Your task to perform on an android device: What is the news today? Image 0: 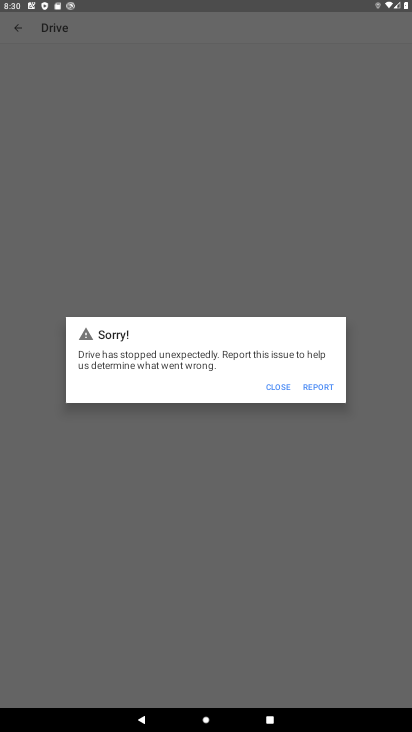
Step 0: press home button
Your task to perform on an android device: What is the news today? Image 1: 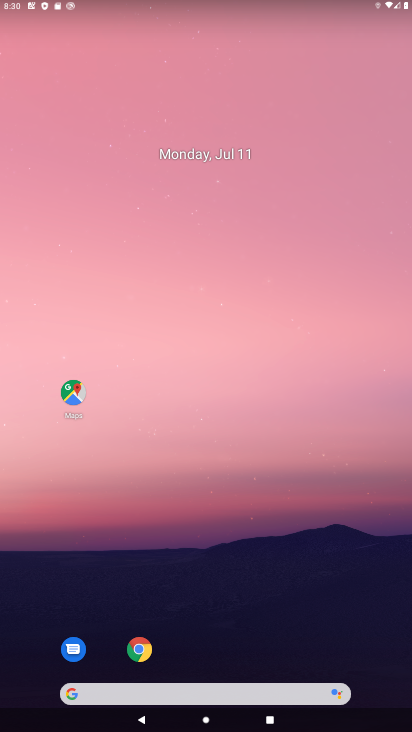
Step 1: drag from (24, 264) to (409, 233)
Your task to perform on an android device: What is the news today? Image 2: 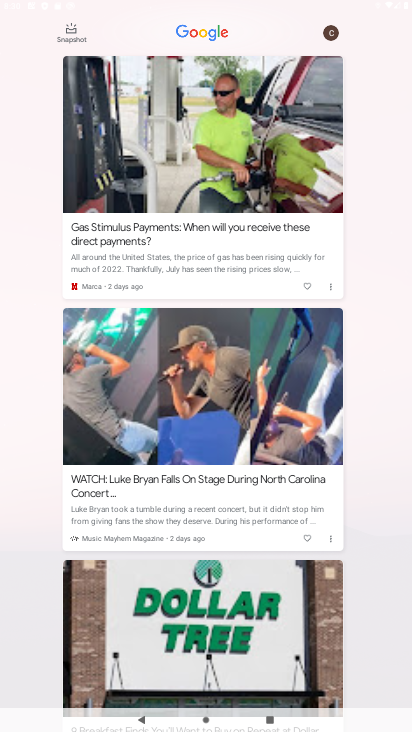
Step 2: drag from (121, 543) to (411, 533)
Your task to perform on an android device: What is the news today? Image 3: 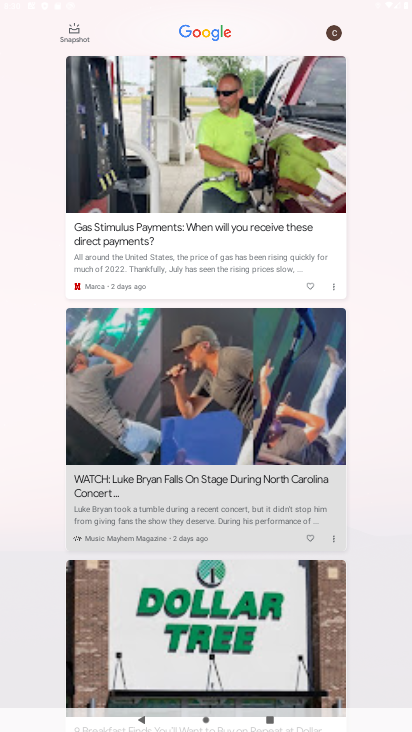
Step 3: click (299, 665)
Your task to perform on an android device: What is the news today? Image 4: 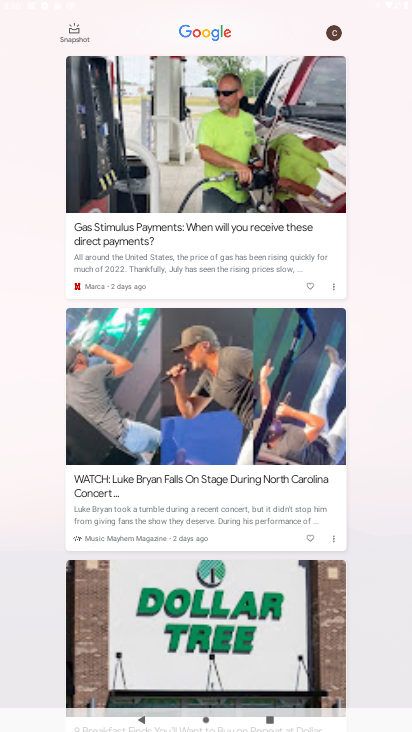
Step 4: task complete